Your task to perform on an android device: Open Yahoo.com Image 0: 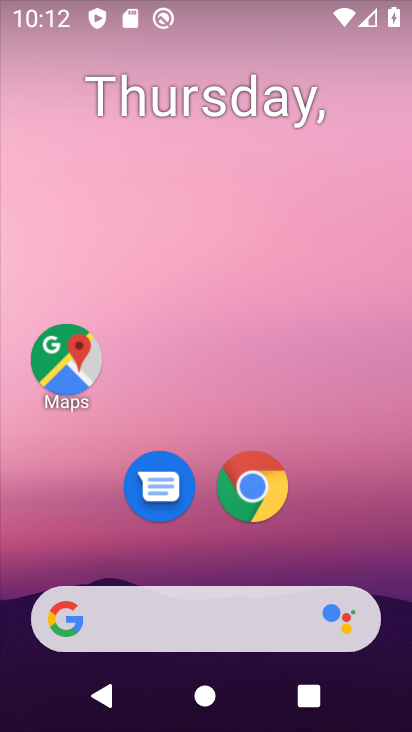
Step 0: click (263, 494)
Your task to perform on an android device: Open Yahoo.com Image 1: 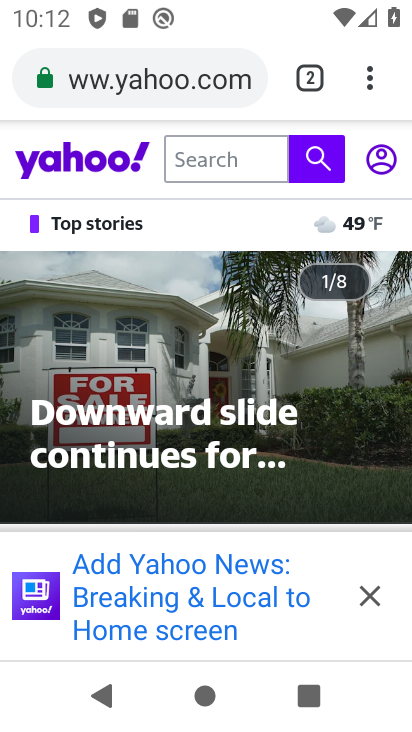
Step 1: task complete